Your task to perform on an android device: turn on showing notifications on the lock screen Image 0: 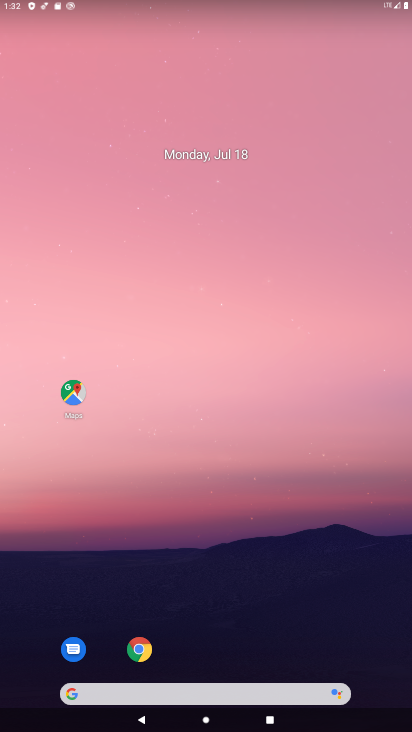
Step 0: drag from (224, 673) to (213, 124)
Your task to perform on an android device: turn on showing notifications on the lock screen Image 1: 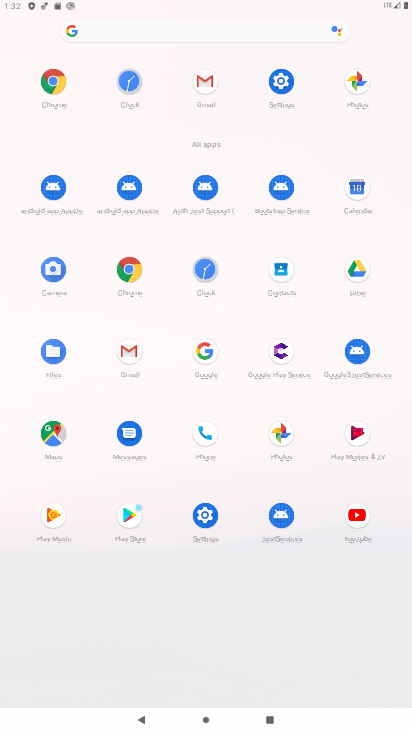
Step 1: click (282, 83)
Your task to perform on an android device: turn on showing notifications on the lock screen Image 2: 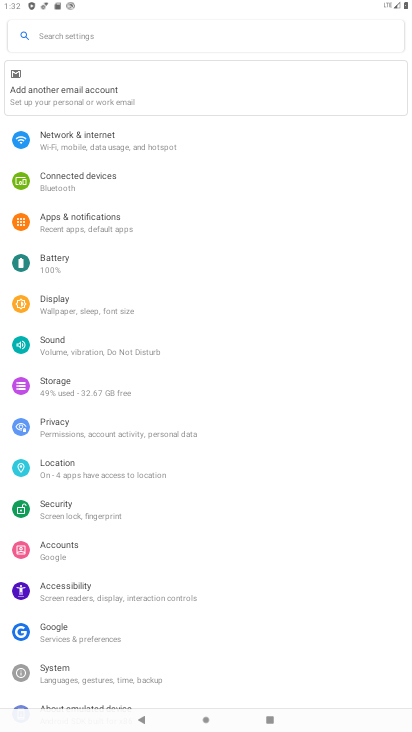
Step 2: click (105, 226)
Your task to perform on an android device: turn on showing notifications on the lock screen Image 3: 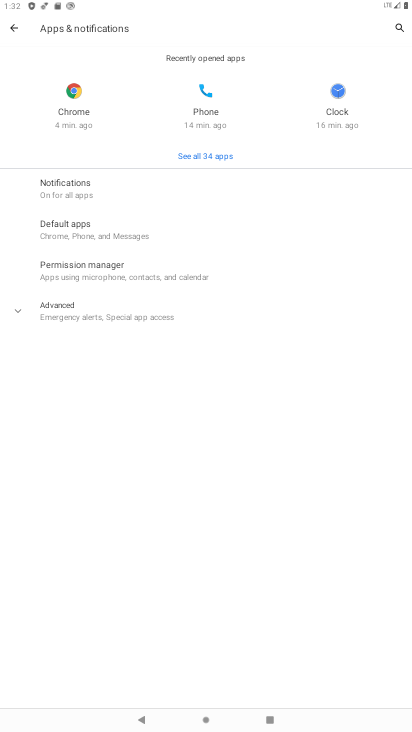
Step 3: click (92, 185)
Your task to perform on an android device: turn on showing notifications on the lock screen Image 4: 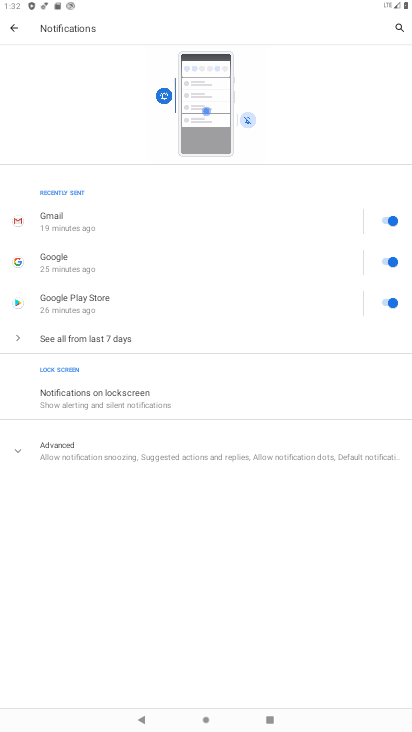
Step 4: click (125, 401)
Your task to perform on an android device: turn on showing notifications on the lock screen Image 5: 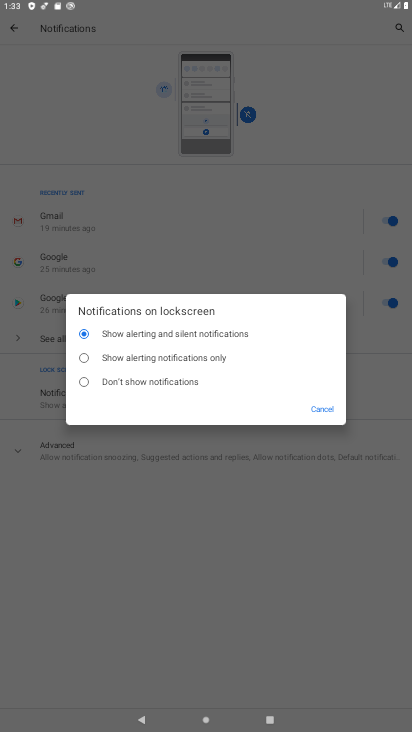
Step 5: task complete